Your task to perform on an android device: Show me the alarms in the clock app Image 0: 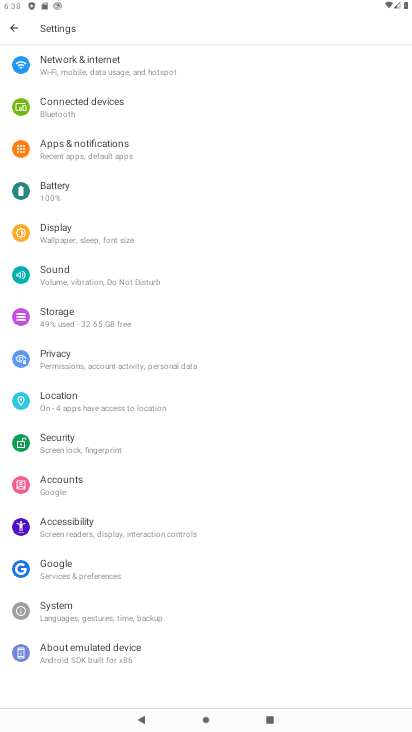
Step 0: press home button
Your task to perform on an android device: Show me the alarms in the clock app Image 1: 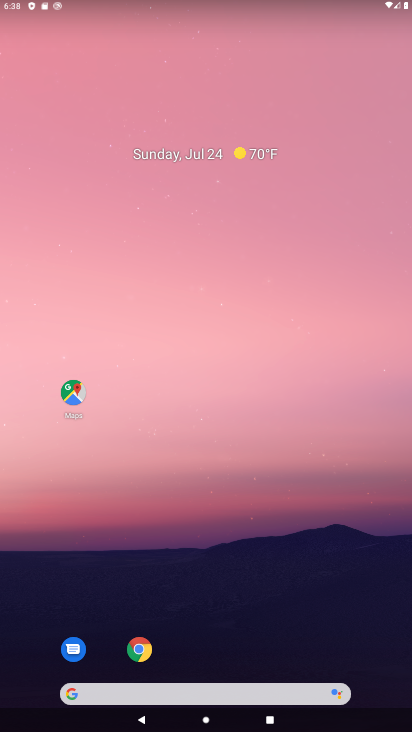
Step 1: drag from (209, 589) to (73, 6)
Your task to perform on an android device: Show me the alarms in the clock app Image 2: 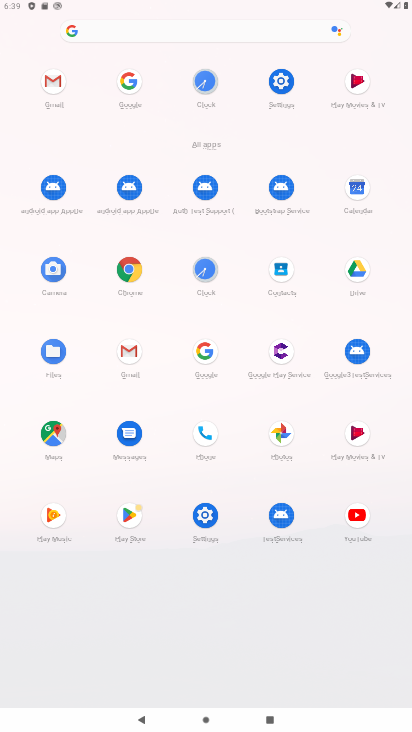
Step 2: click (206, 271)
Your task to perform on an android device: Show me the alarms in the clock app Image 3: 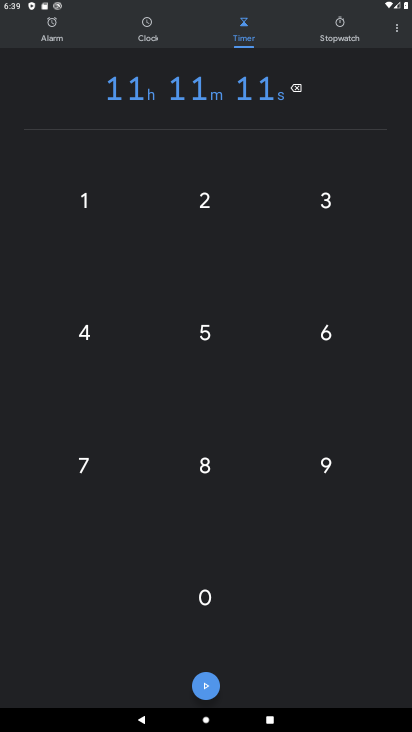
Step 3: click (206, 271)
Your task to perform on an android device: Show me the alarms in the clock app Image 4: 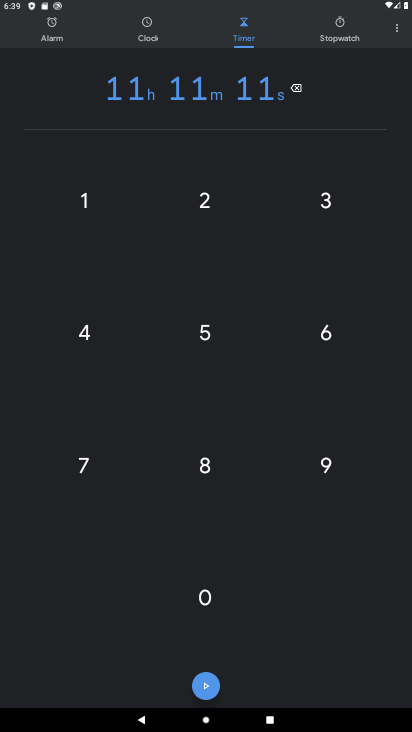
Step 4: click (52, 32)
Your task to perform on an android device: Show me the alarms in the clock app Image 5: 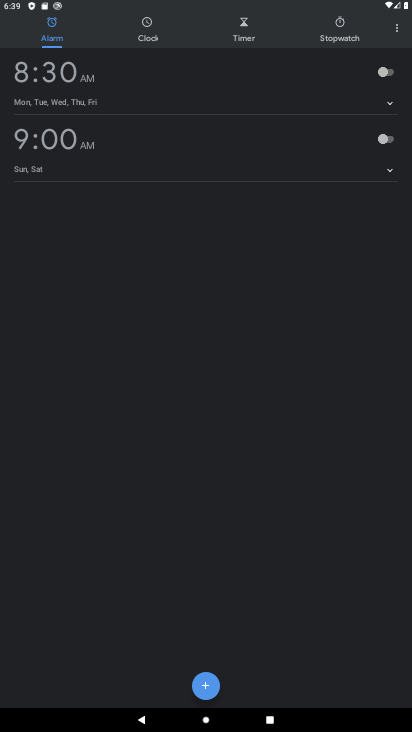
Step 5: task complete